Your task to perform on an android device: open sync settings in chrome Image 0: 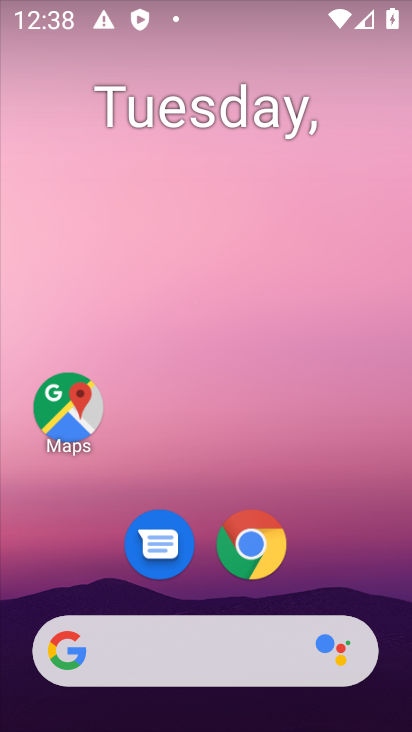
Step 0: drag from (309, 553) to (244, 0)
Your task to perform on an android device: open sync settings in chrome Image 1: 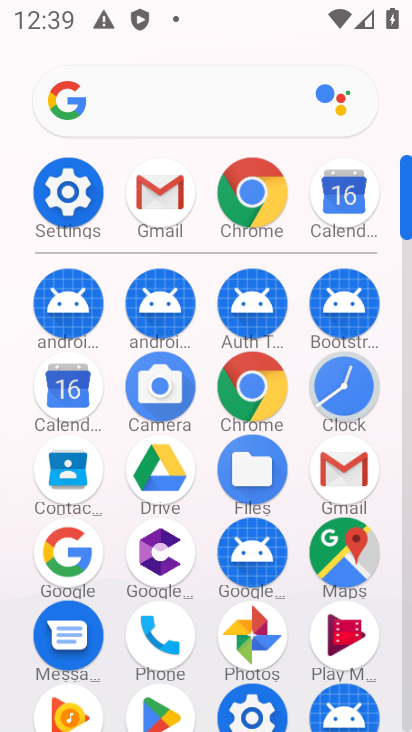
Step 1: click (256, 382)
Your task to perform on an android device: open sync settings in chrome Image 2: 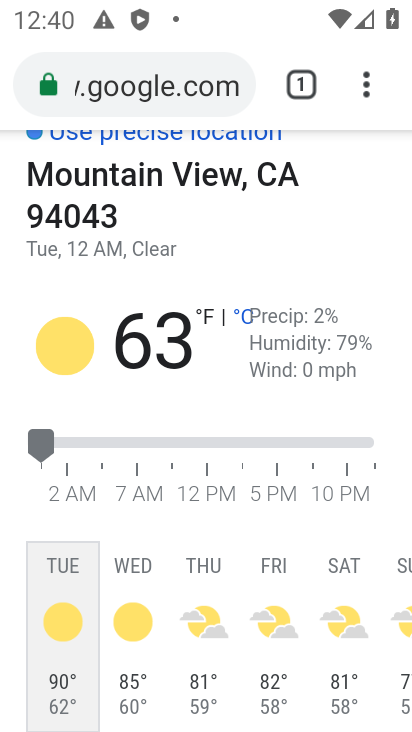
Step 2: drag from (369, 67) to (149, 605)
Your task to perform on an android device: open sync settings in chrome Image 3: 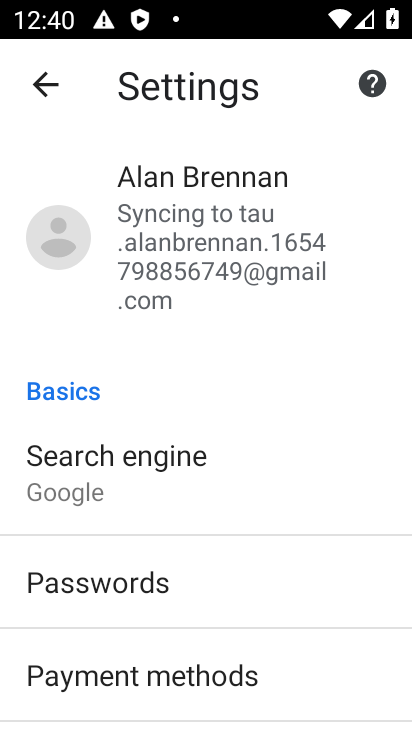
Step 3: click (184, 264)
Your task to perform on an android device: open sync settings in chrome Image 4: 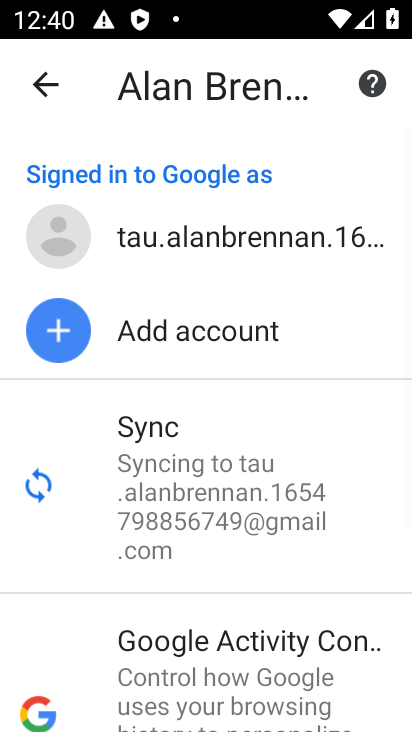
Step 4: click (179, 503)
Your task to perform on an android device: open sync settings in chrome Image 5: 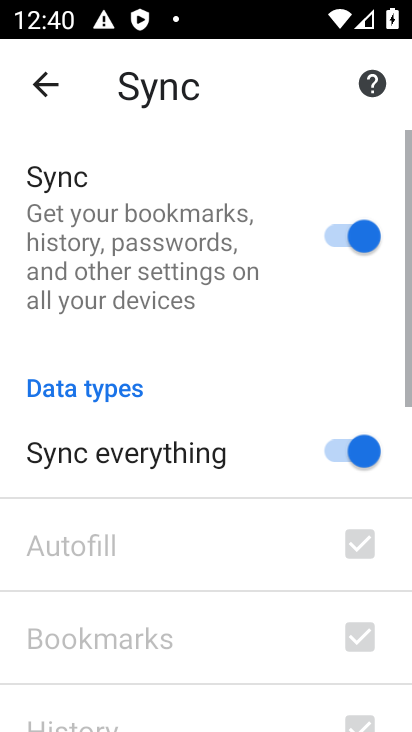
Step 5: task complete